Your task to perform on an android device: Open eBay Image 0: 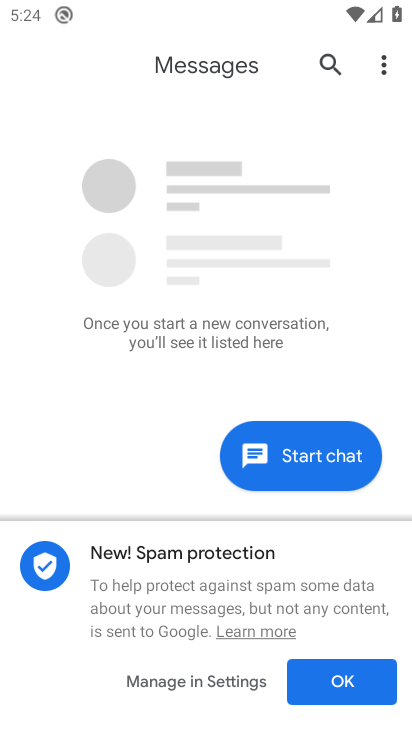
Step 0: press back button
Your task to perform on an android device: Open eBay Image 1: 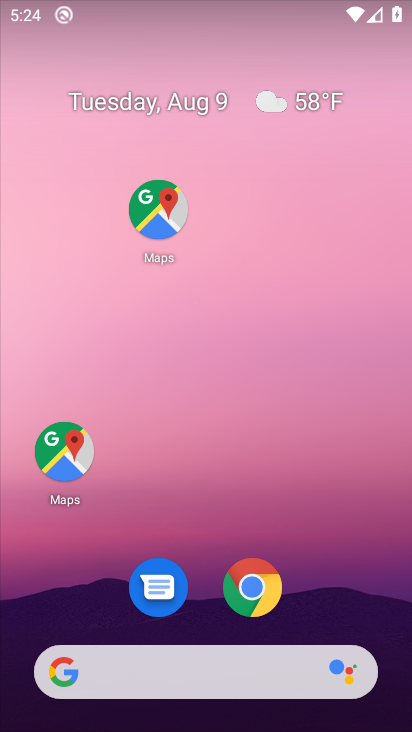
Step 1: drag from (204, 327) to (191, 134)
Your task to perform on an android device: Open eBay Image 2: 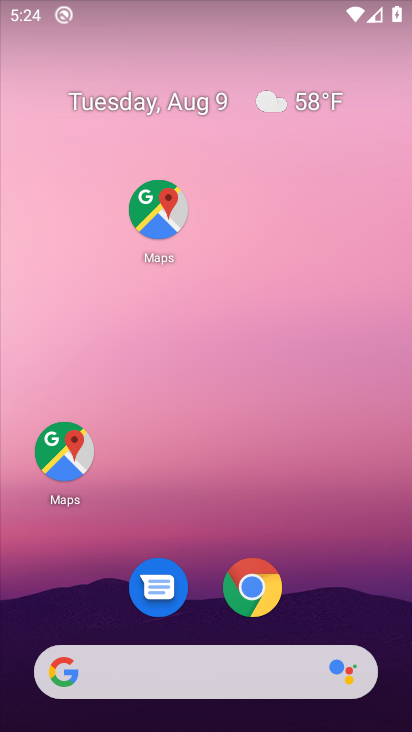
Step 2: drag from (223, 674) to (198, 96)
Your task to perform on an android device: Open eBay Image 3: 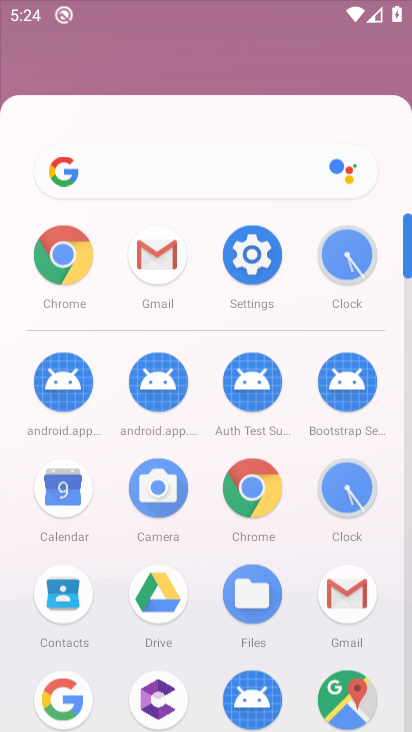
Step 3: drag from (241, 490) to (226, 142)
Your task to perform on an android device: Open eBay Image 4: 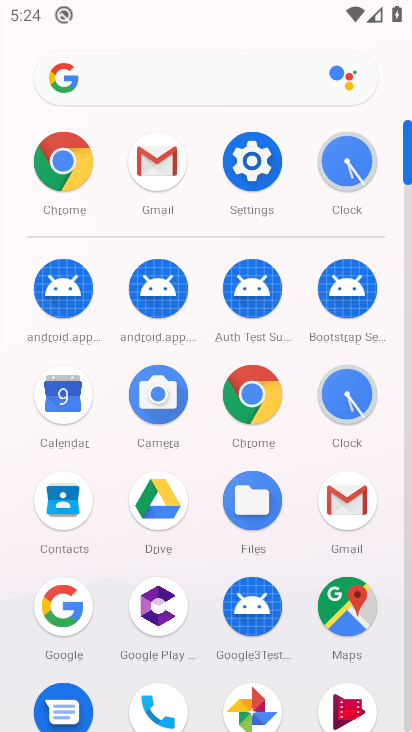
Step 4: click (61, 158)
Your task to perform on an android device: Open eBay Image 5: 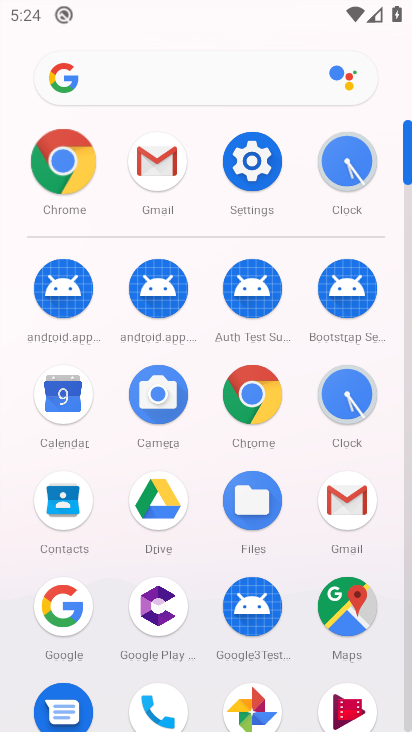
Step 5: click (62, 162)
Your task to perform on an android device: Open eBay Image 6: 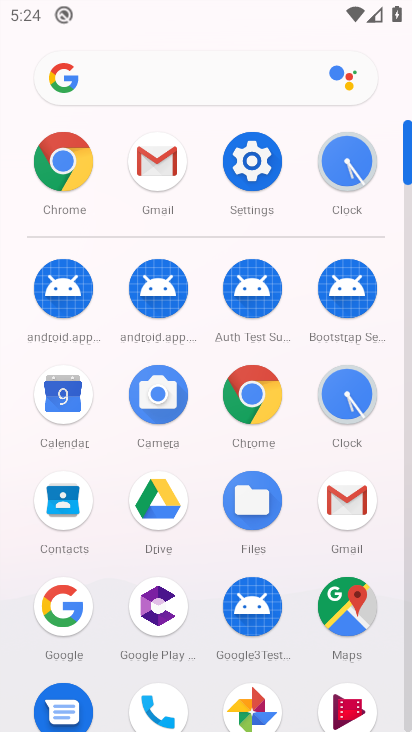
Step 6: click (57, 164)
Your task to perform on an android device: Open eBay Image 7: 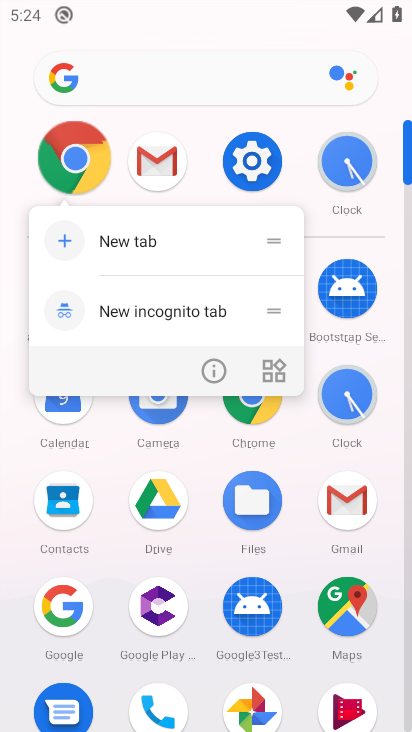
Step 7: click (69, 160)
Your task to perform on an android device: Open eBay Image 8: 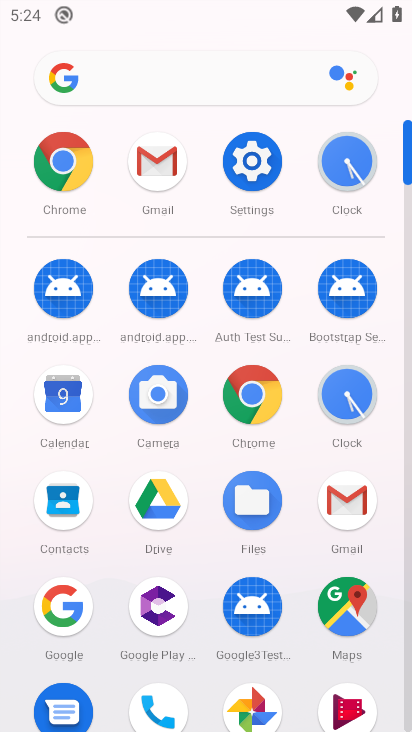
Step 8: click (70, 161)
Your task to perform on an android device: Open eBay Image 9: 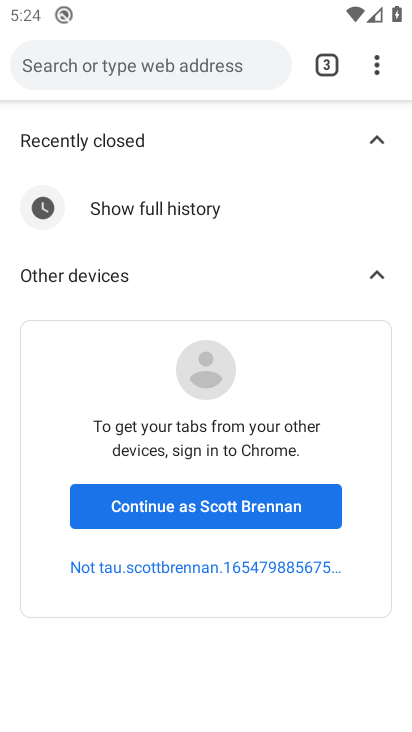
Step 9: click (366, 67)
Your task to perform on an android device: Open eBay Image 10: 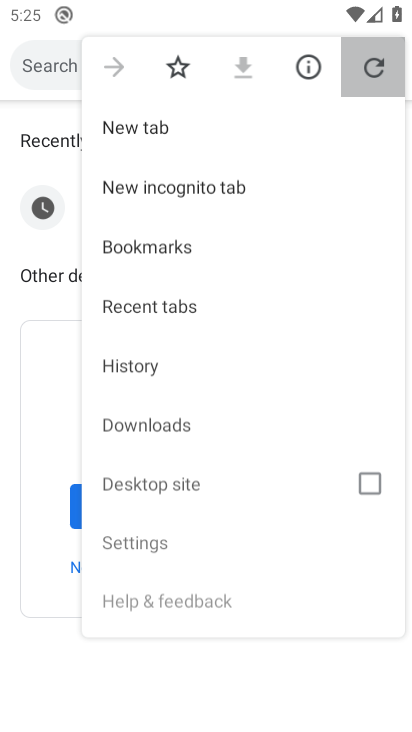
Step 10: click (363, 70)
Your task to perform on an android device: Open eBay Image 11: 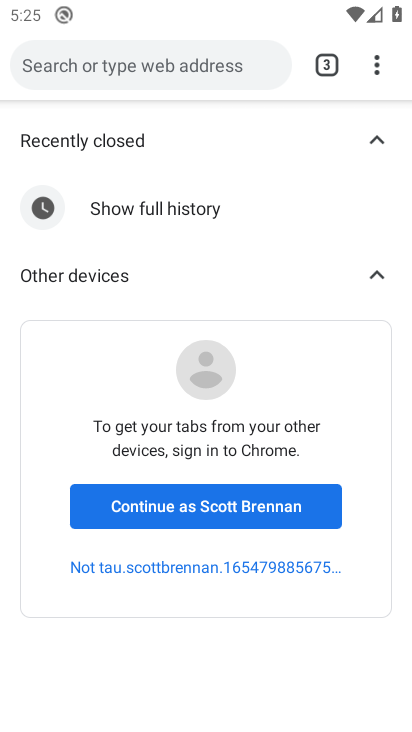
Step 11: click (382, 71)
Your task to perform on an android device: Open eBay Image 12: 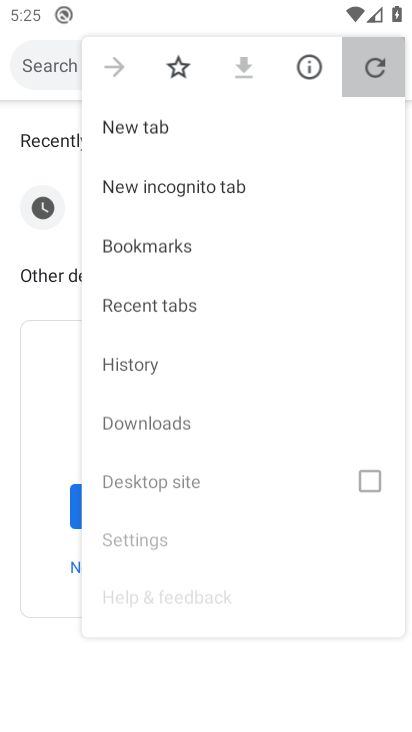
Step 12: click (382, 70)
Your task to perform on an android device: Open eBay Image 13: 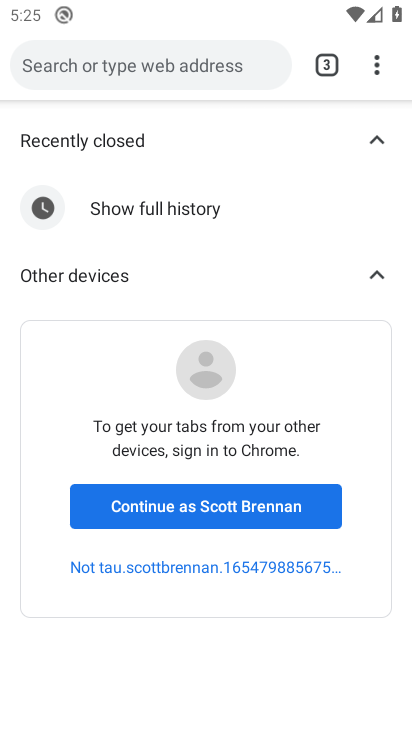
Step 13: click (382, 70)
Your task to perform on an android device: Open eBay Image 14: 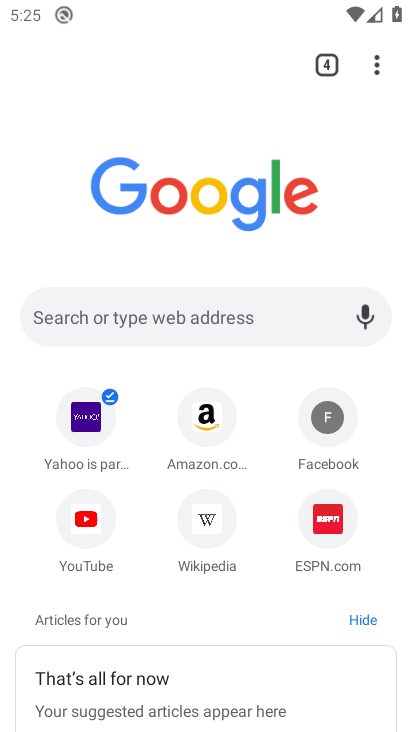
Step 14: drag from (373, 70) to (137, 120)
Your task to perform on an android device: Open eBay Image 15: 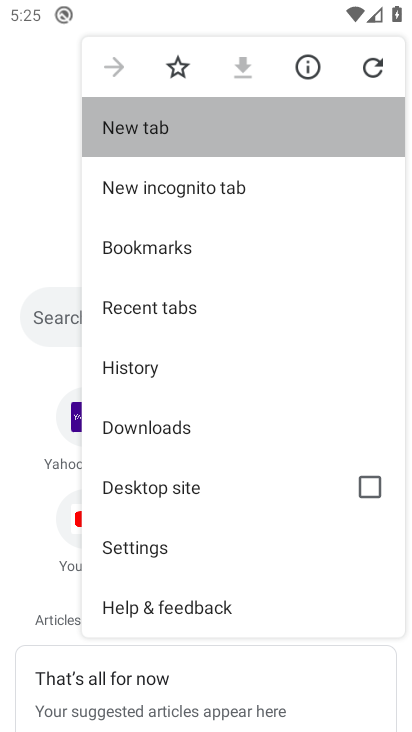
Step 15: click (137, 120)
Your task to perform on an android device: Open eBay Image 16: 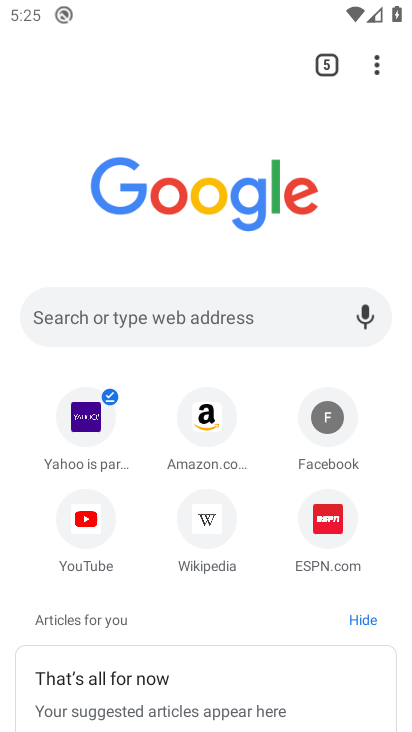
Step 16: click (73, 331)
Your task to perform on an android device: Open eBay Image 17: 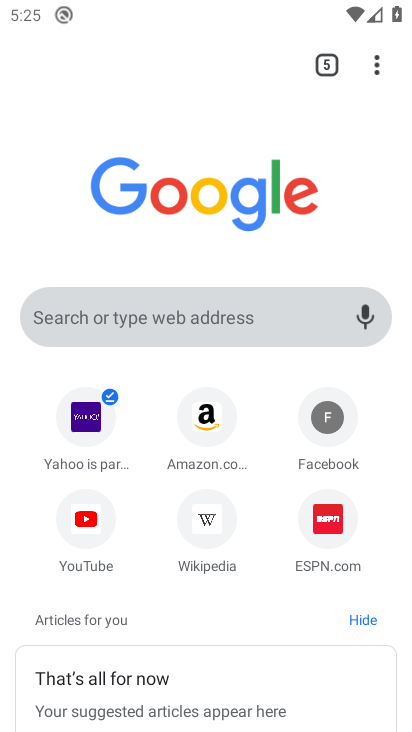
Step 17: click (75, 332)
Your task to perform on an android device: Open eBay Image 18: 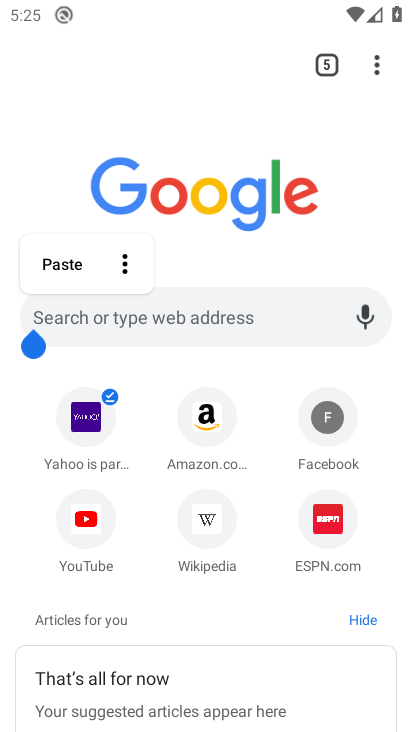
Step 18: click (45, 311)
Your task to perform on an android device: Open eBay Image 19: 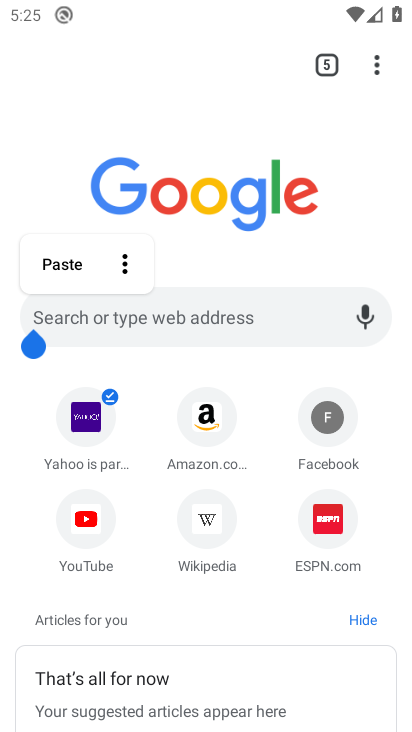
Step 19: click (45, 311)
Your task to perform on an android device: Open eBay Image 20: 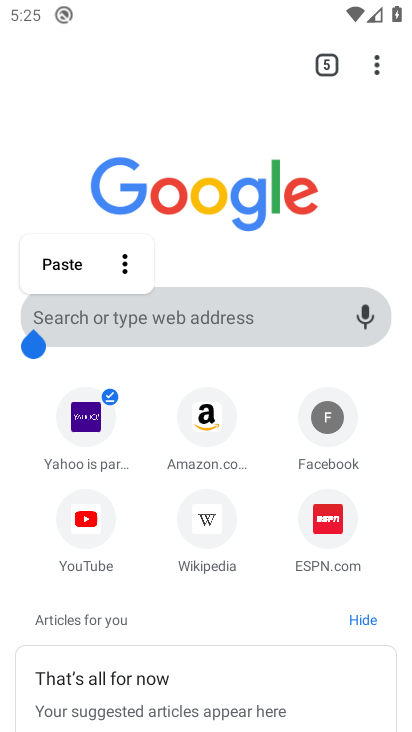
Step 20: click (45, 311)
Your task to perform on an android device: Open eBay Image 21: 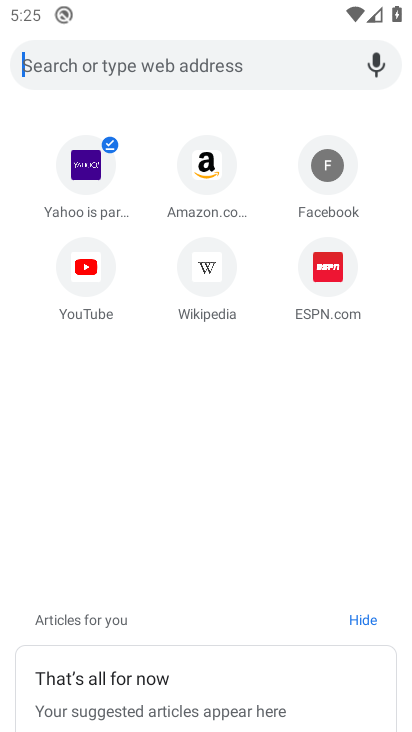
Step 21: click (44, 312)
Your task to perform on an android device: Open eBay Image 22: 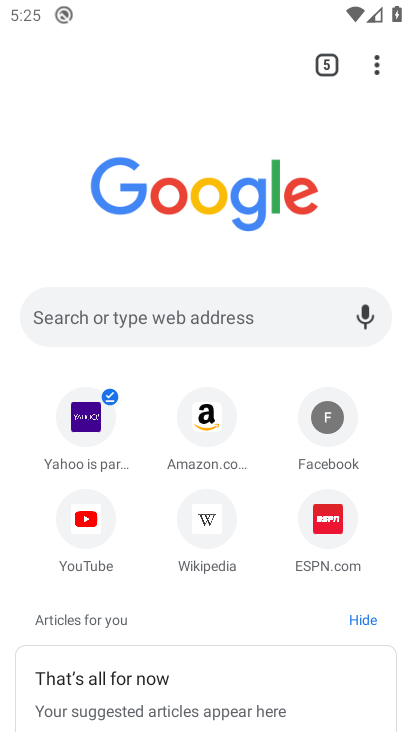
Step 22: click (70, 319)
Your task to perform on an android device: Open eBay Image 23: 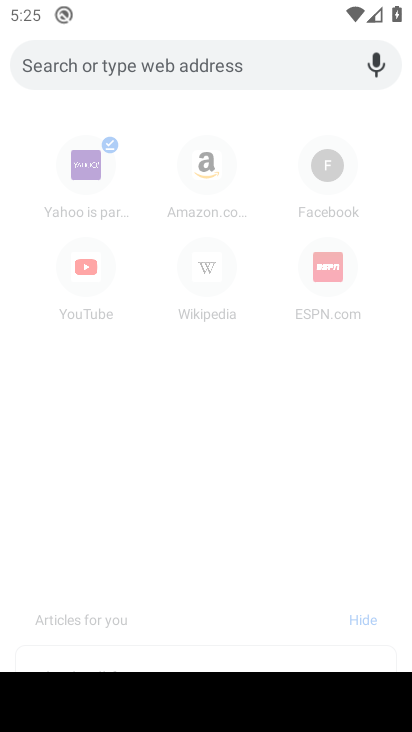
Step 23: type "ebay"
Your task to perform on an android device: Open eBay Image 24: 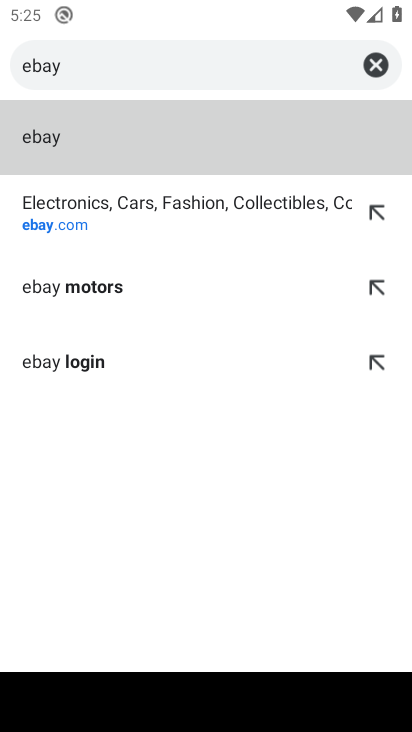
Step 24: click (75, 153)
Your task to perform on an android device: Open eBay Image 25: 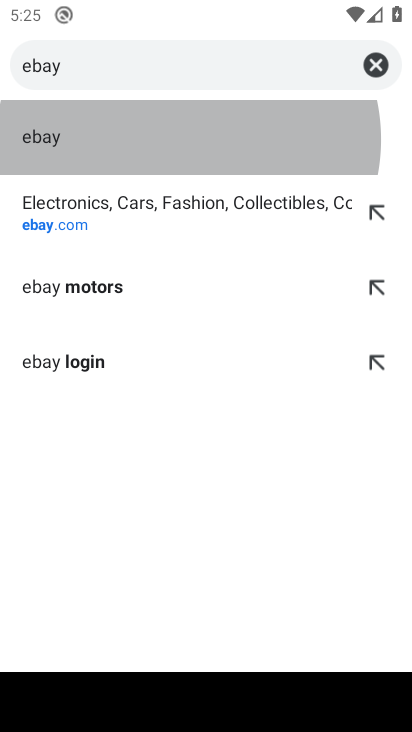
Step 25: click (77, 147)
Your task to perform on an android device: Open eBay Image 26: 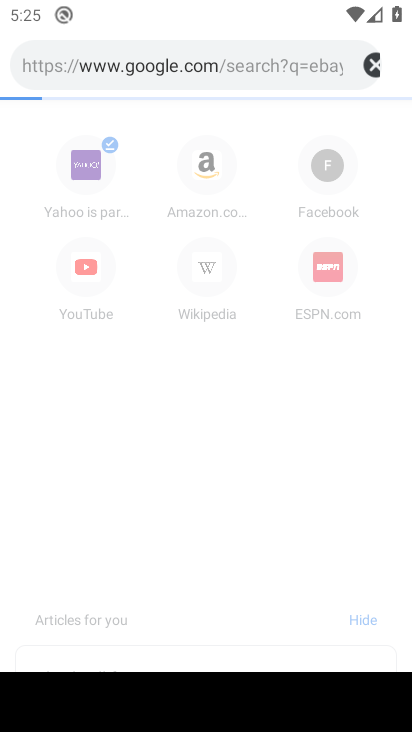
Step 26: task complete